Your task to perform on an android device: delete browsing data in the chrome app Image 0: 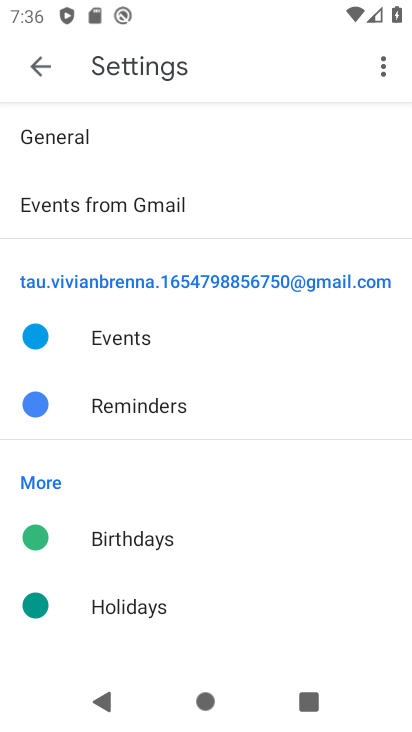
Step 0: press home button
Your task to perform on an android device: delete browsing data in the chrome app Image 1: 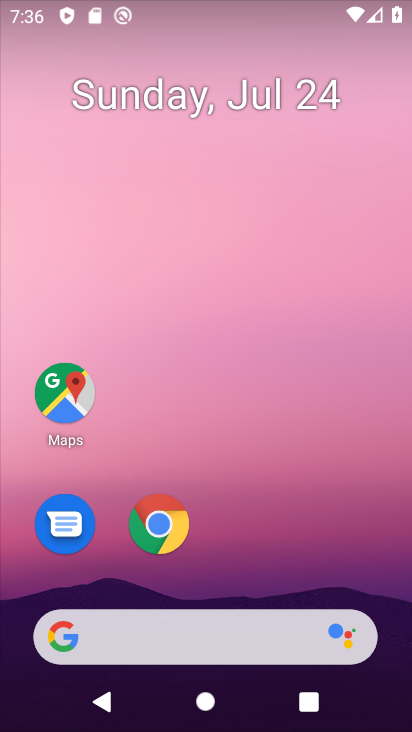
Step 1: click (156, 527)
Your task to perform on an android device: delete browsing data in the chrome app Image 2: 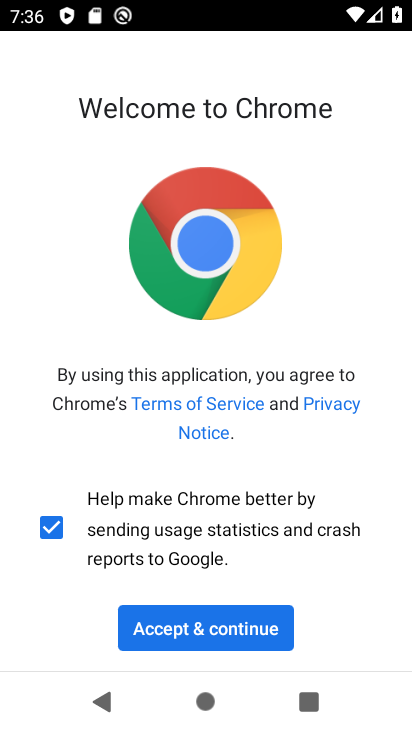
Step 2: click (239, 631)
Your task to perform on an android device: delete browsing data in the chrome app Image 3: 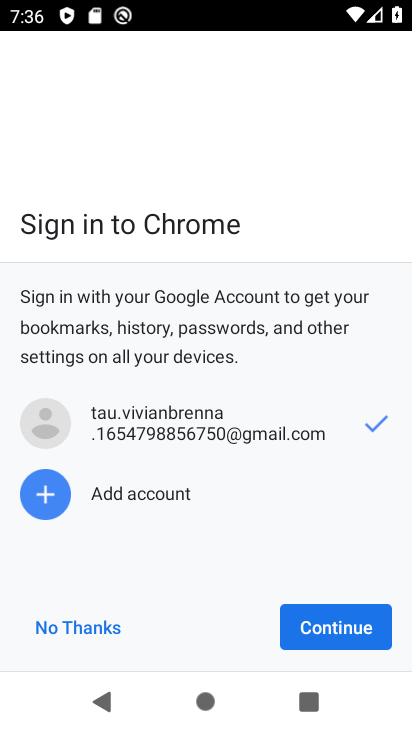
Step 3: click (304, 630)
Your task to perform on an android device: delete browsing data in the chrome app Image 4: 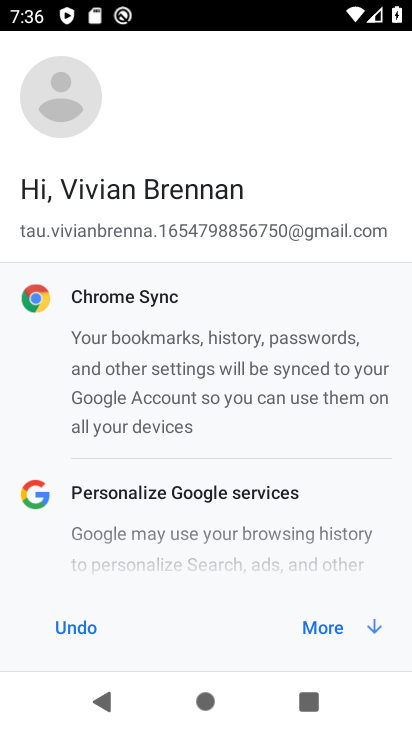
Step 4: click (309, 625)
Your task to perform on an android device: delete browsing data in the chrome app Image 5: 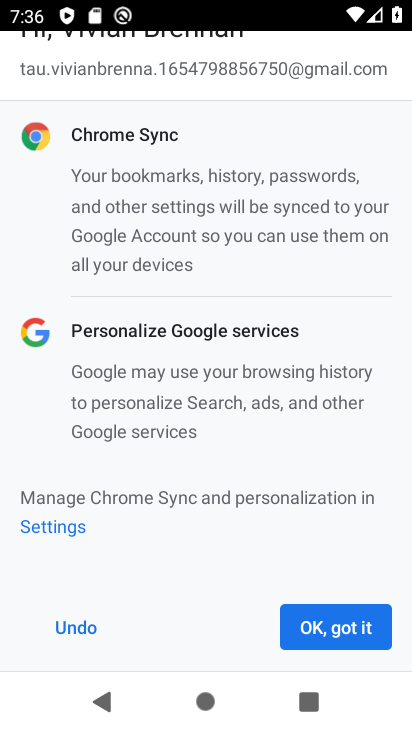
Step 5: click (337, 626)
Your task to perform on an android device: delete browsing data in the chrome app Image 6: 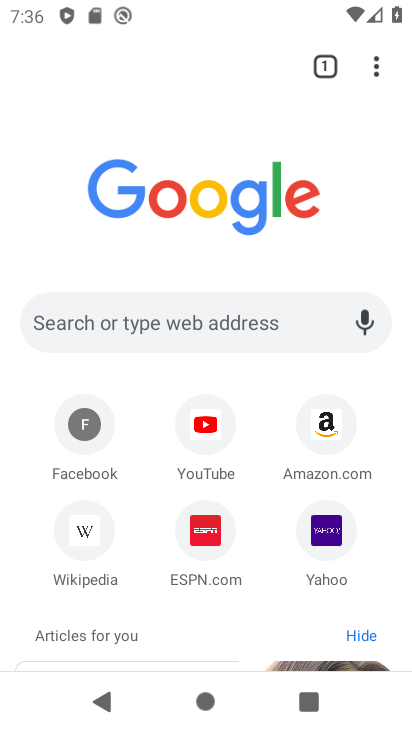
Step 6: click (376, 68)
Your task to perform on an android device: delete browsing data in the chrome app Image 7: 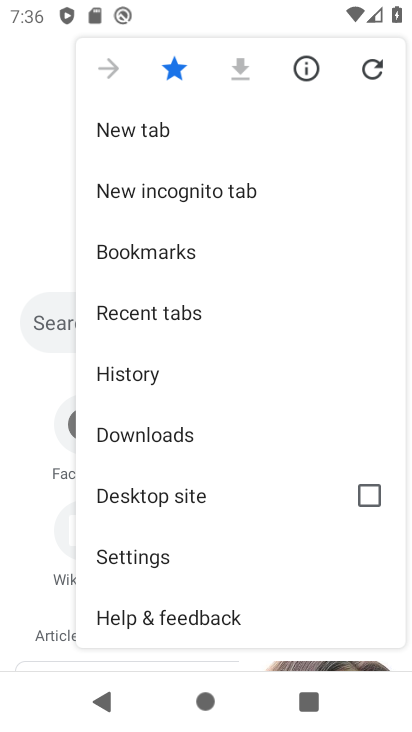
Step 7: click (158, 366)
Your task to perform on an android device: delete browsing data in the chrome app Image 8: 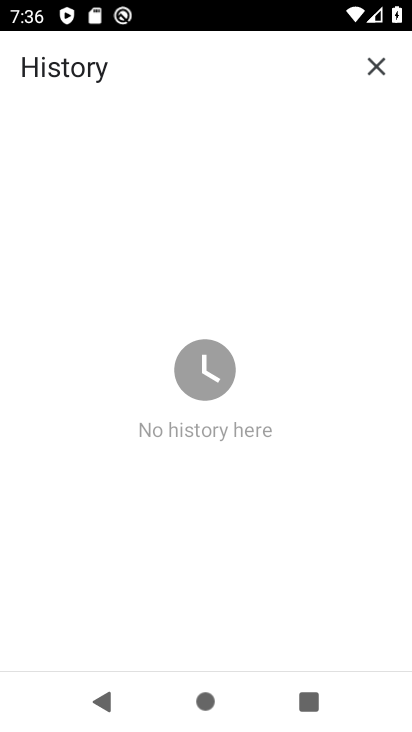
Step 8: task complete